Your task to perform on an android device: make emails show in primary in the gmail app Image 0: 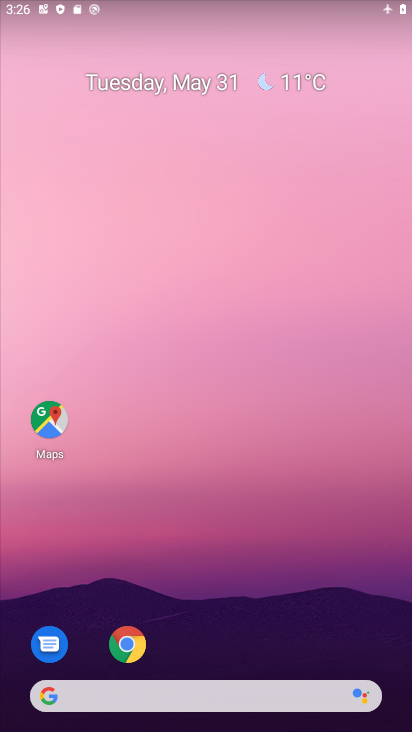
Step 0: drag from (248, 597) to (248, 123)
Your task to perform on an android device: make emails show in primary in the gmail app Image 1: 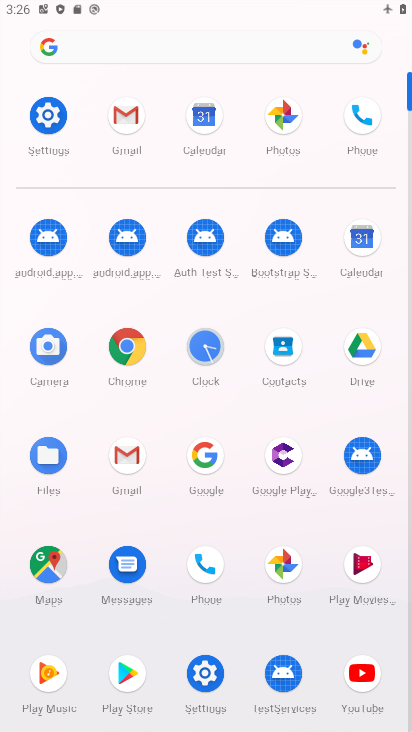
Step 1: click (116, 118)
Your task to perform on an android device: make emails show in primary in the gmail app Image 2: 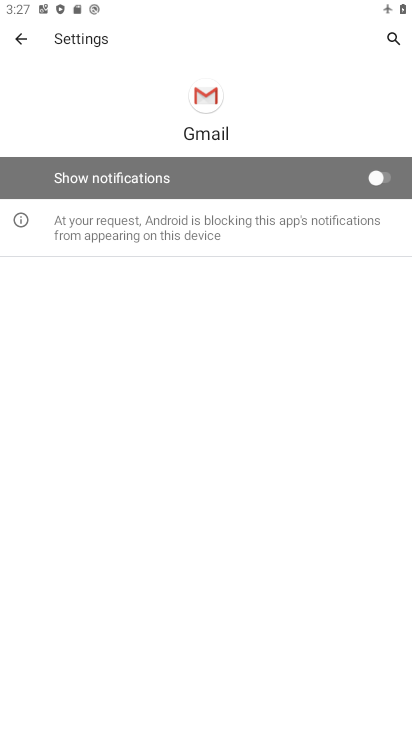
Step 2: press back button
Your task to perform on an android device: make emails show in primary in the gmail app Image 3: 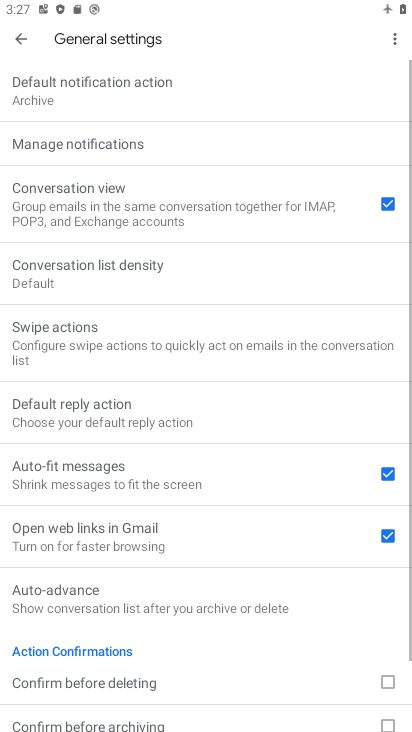
Step 3: press back button
Your task to perform on an android device: make emails show in primary in the gmail app Image 4: 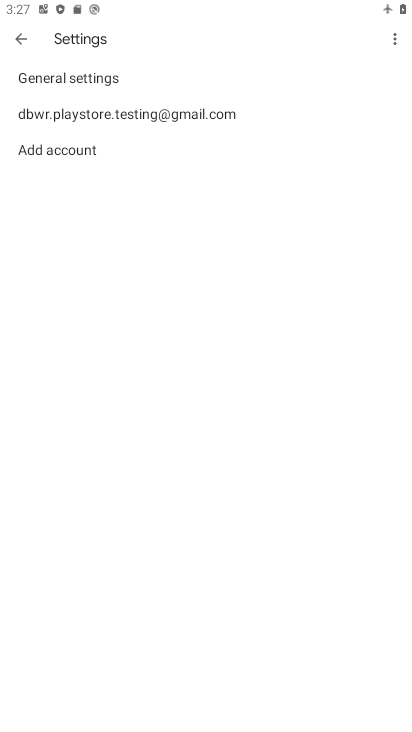
Step 4: click (107, 73)
Your task to perform on an android device: make emails show in primary in the gmail app Image 5: 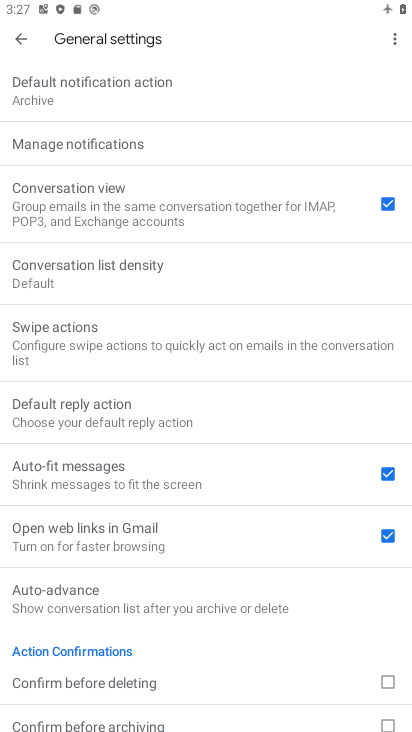
Step 5: drag from (179, 190) to (242, 541)
Your task to perform on an android device: make emails show in primary in the gmail app Image 6: 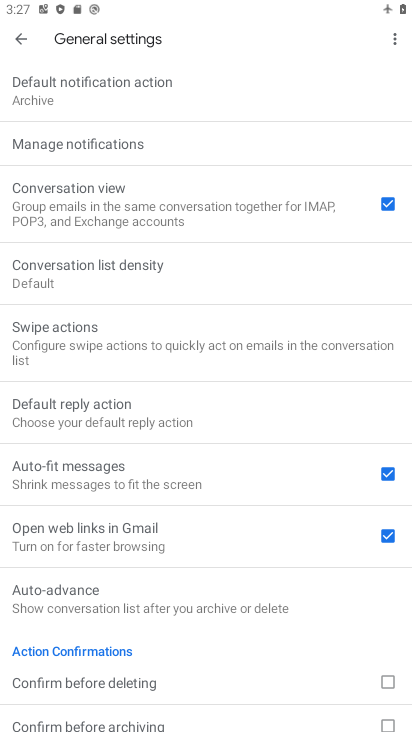
Step 6: drag from (156, 472) to (97, 100)
Your task to perform on an android device: make emails show in primary in the gmail app Image 7: 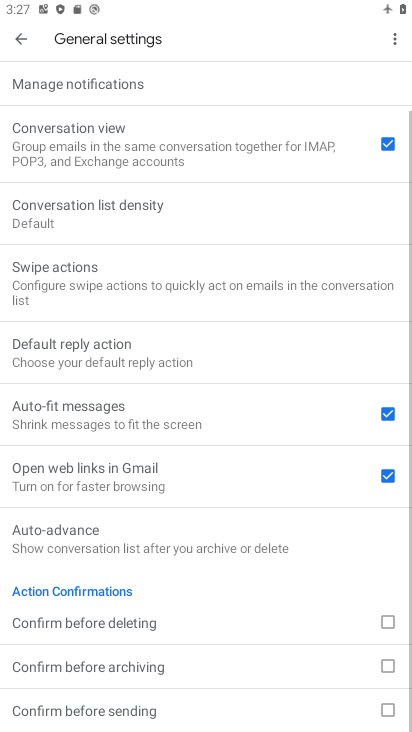
Step 7: drag from (169, 591) to (180, 192)
Your task to perform on an android device: make emails show in primary in the gmail app Image 8: 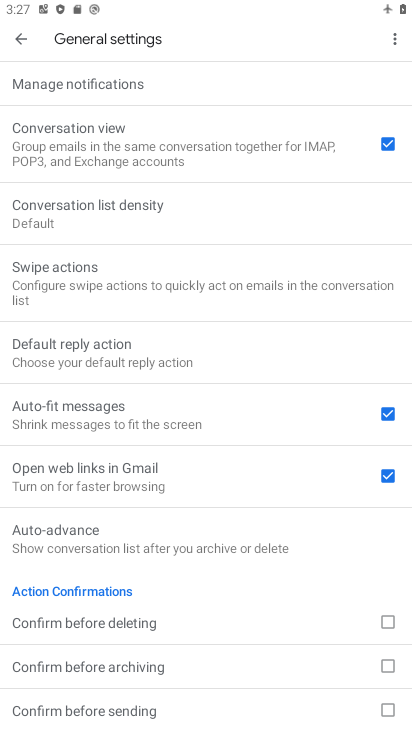
Step 8: press back button
Your task to perform on an android device: make emails show in primary in the gmail app Image 9: 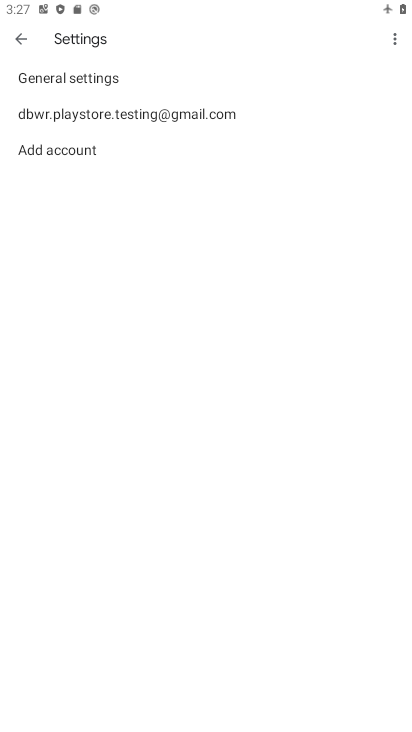
Step 9: press back button
Your task to perform on an android device: make emails show in primary in the gmail app Image 10: 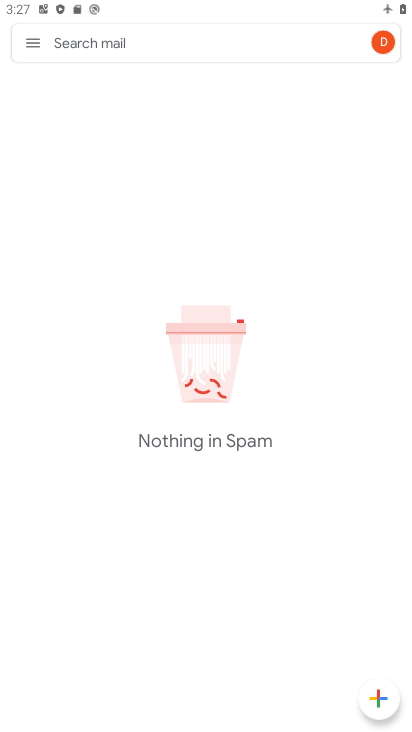
Step 10: click (41, 40)
Your task to perform on an android device: make emails show in primary in the gmail app Image 11: 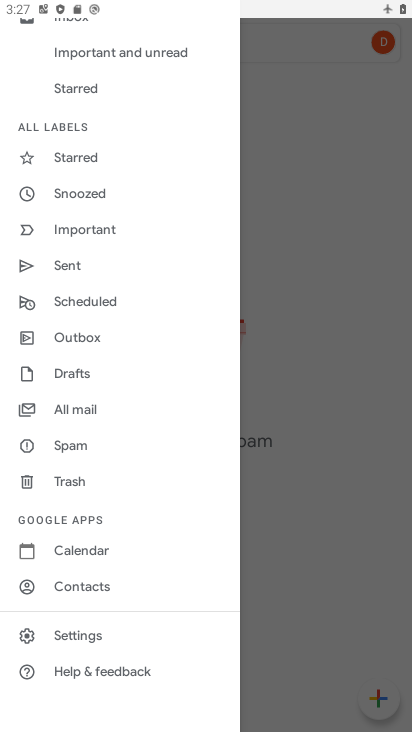
Step 11: drag from (117, 123) to (134, 462)
Your task to perform on an android device: make emails show in primary in the gmail app Image 12: 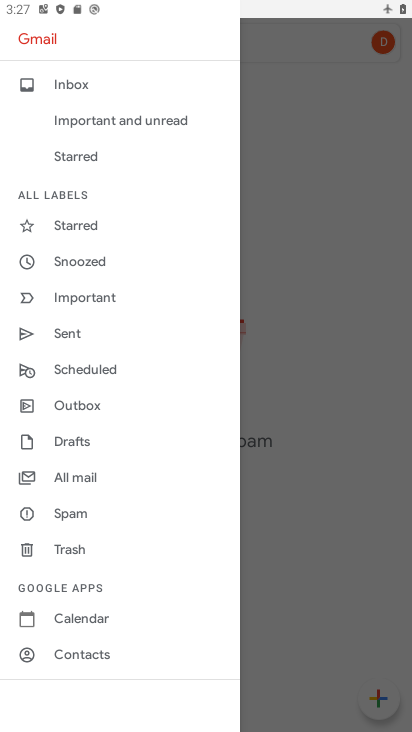
Step 12: drag from (173, 208) to (176, 432)
Your task to perform on an android device: make emails show in primary in the gmail app Image 13: 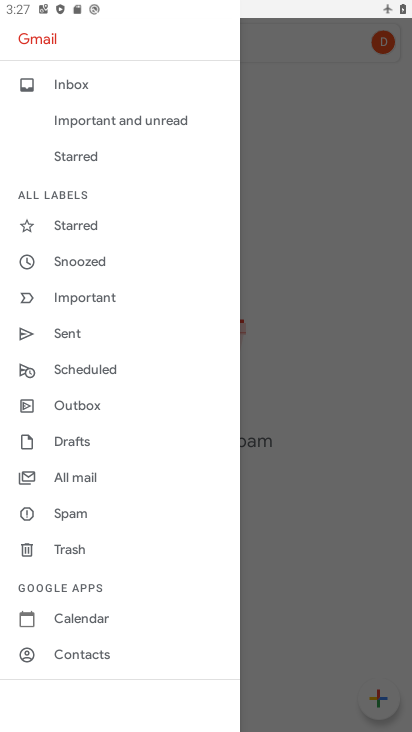
Step 13: drag from (156, 410) to (155, 358)
Your task to perform on an android device: make emails show in primary in the gmail app Image 14: 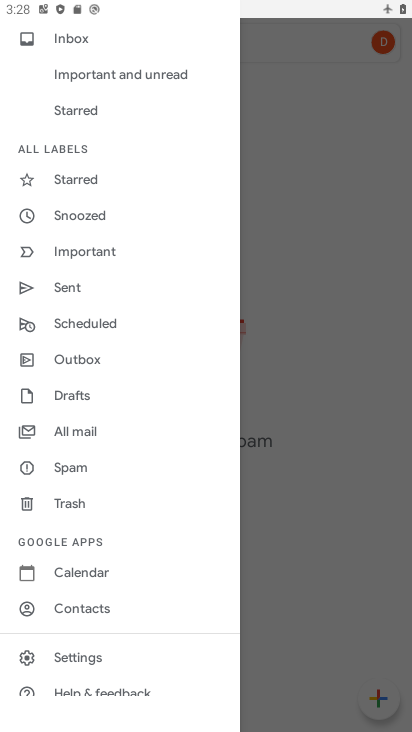
Step 14: drag from (106, 507) to (113, 243)
Your task to perform on an android device: make emails show in primary in the gmail app Image 15: 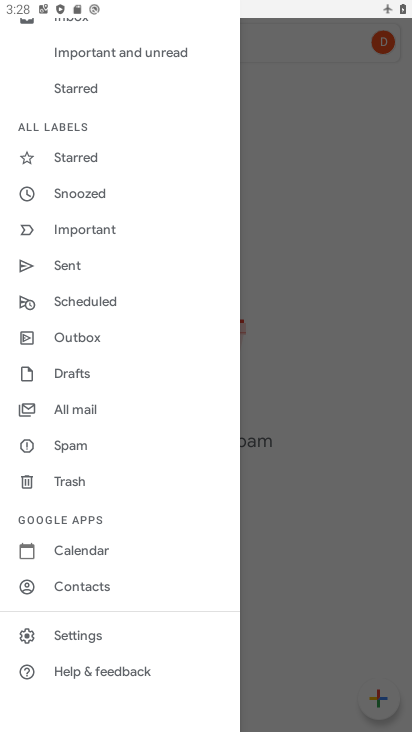
Step 15: drag from (112, 117) to (124, 399)
Your task to perform on an android device: make emails show in primary in the gmail app Image 16: 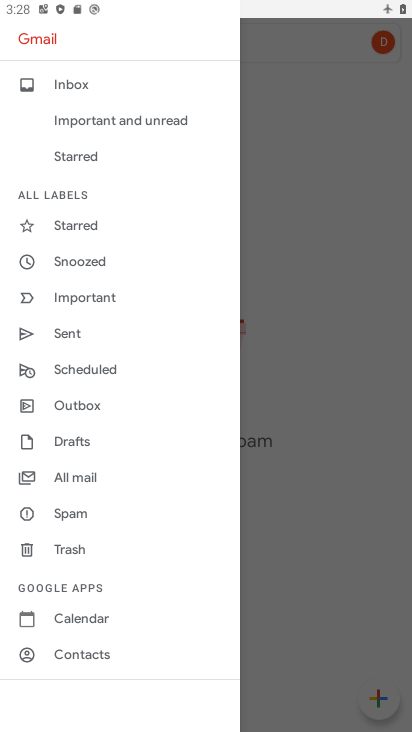
Step 16: drag from (134, 438) to (145, 232)
Your task to perform on an android device: make emails show in primary in the gmail app Image 17: 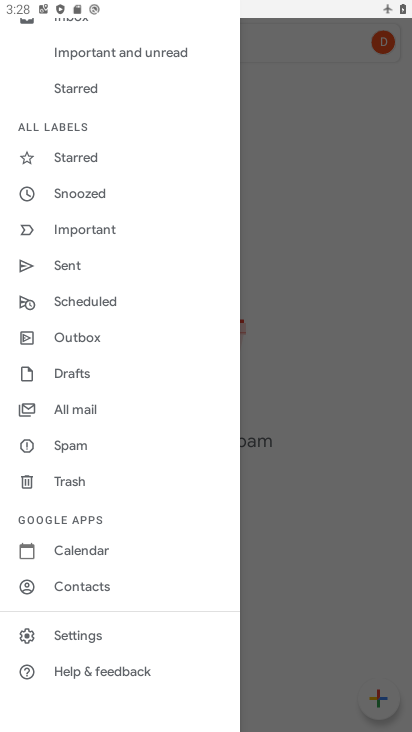
Step 17: click (108, 630)
Your task to perform on an android device: make emails show in primary in the gmail app Image 18: 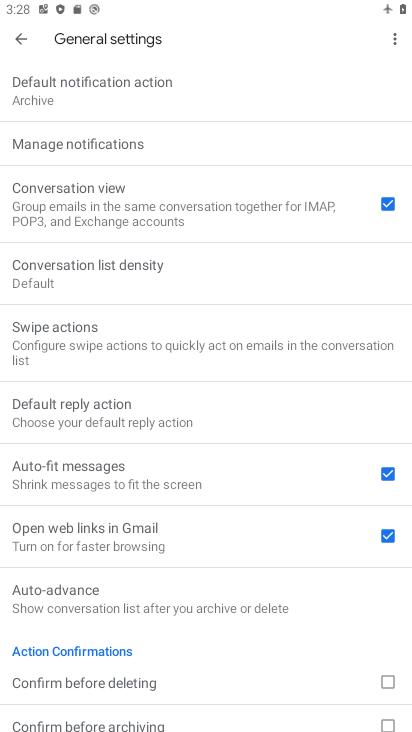
Step 18: task complete